Your task to perform on an android device: Go to sound settings Image 0: 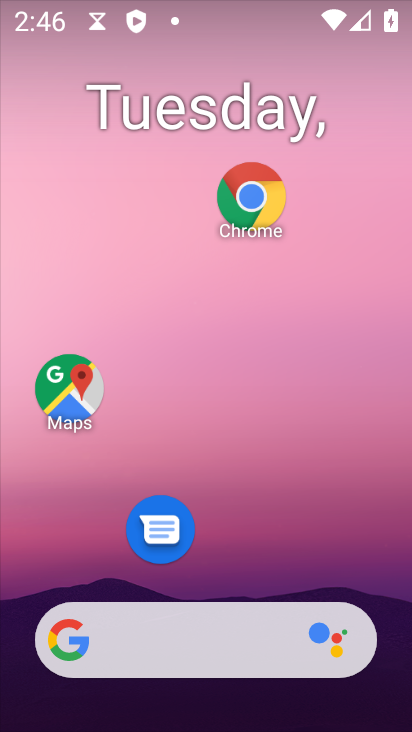
Step 0: drag from (233, 598) to (283, 304)
Your task to perform on an android device: Go to sound settings Image 1: 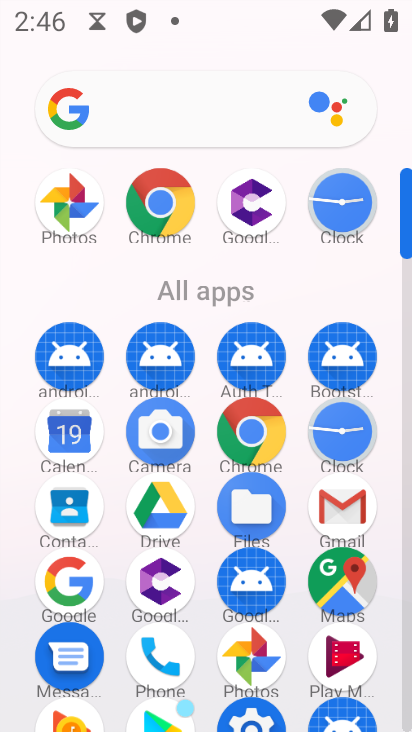
Step 1: drag from (201, 701) to (218, 333)
Your task to perform on an android device: Go to sound settings Image 2: 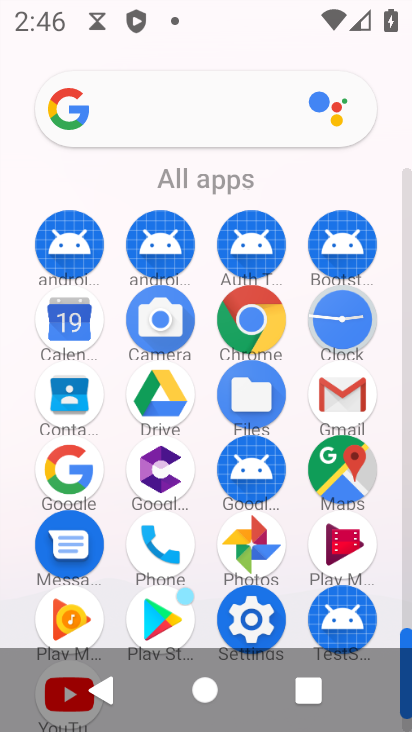
Step 2: click (253, 615)
Your task to perform on an android device: Go to sound settings Image 3: 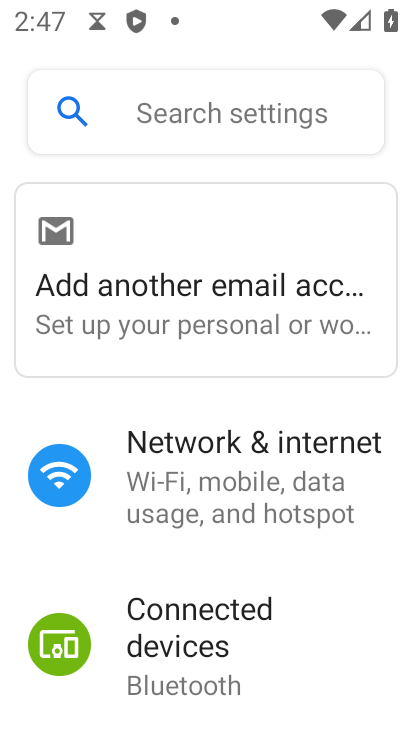
Step 3: drag from (218, 686) to (230, 258)
Your task to perform on an android device: Go to sound settings Image 4: 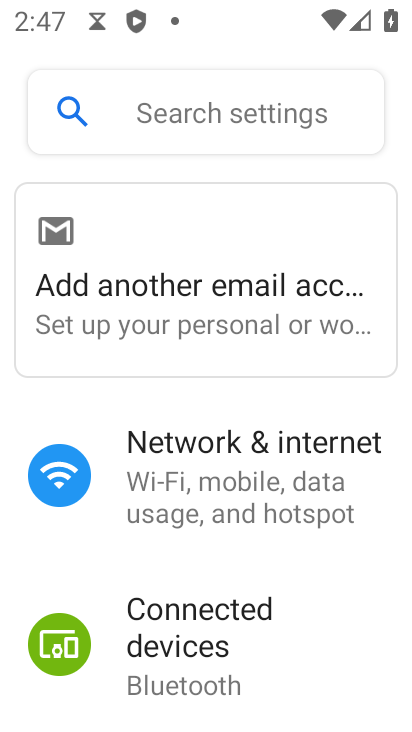
Step 4: drag from (254, 673) to (266, 288)
Your task to perform on an android device: Go to sound settings Image 5: 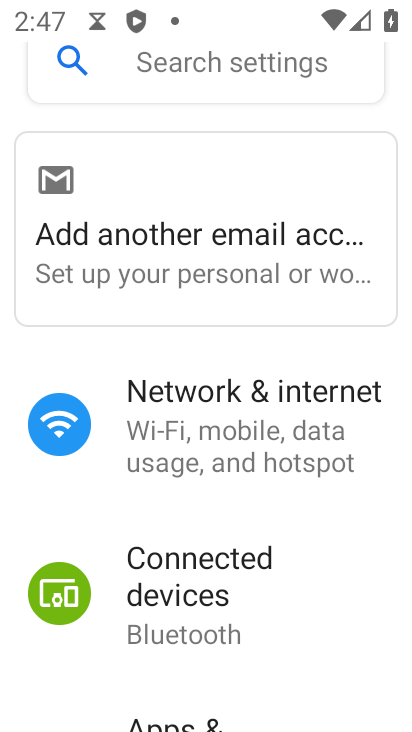
Step 5: drag from (196, 716) to (208, 350)
Your task to perform on an android device: Go to sound settings Image 6: 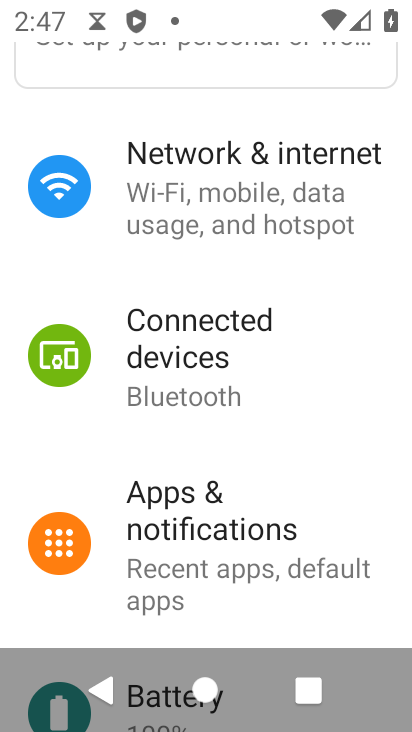
Step 6: drag from (208, 616) to (249, 296)
Your task to perform on an android device: Go to sound settings Image 7: 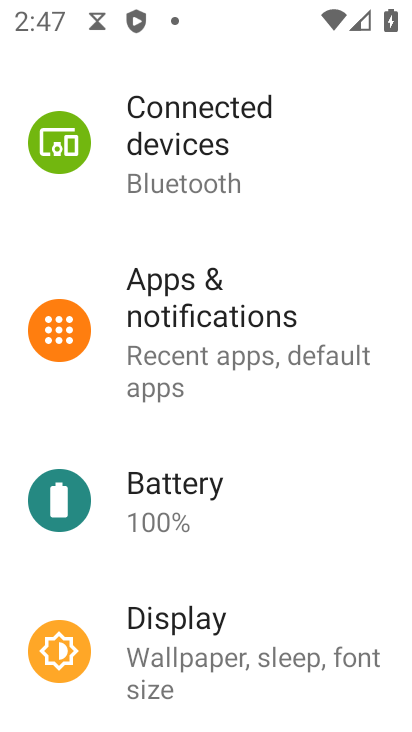
Step 7: drag from (215, 667) to (221, 364)
Your task to perform on an android device: Go to sound settings Image 8: 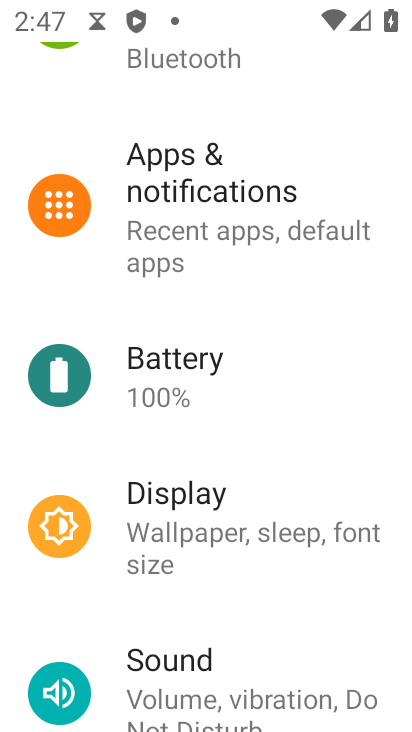
Step 8: click (200, 689)
Your task to perform on an android device: Go to sound settings Image 9: 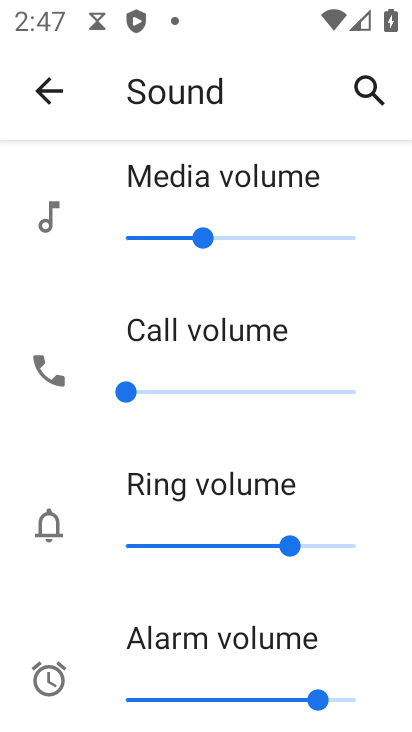
Step 9: task complete